Your task to perform on an android device: check android version Image 0: 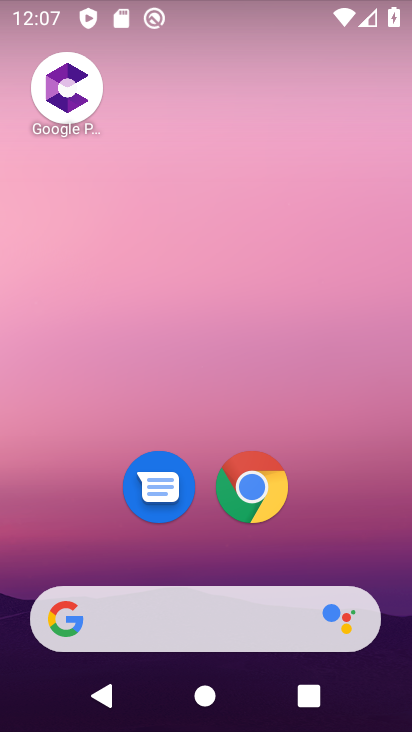
Step 0: press home button
Your task to perform on an android device: check android version Image 1: 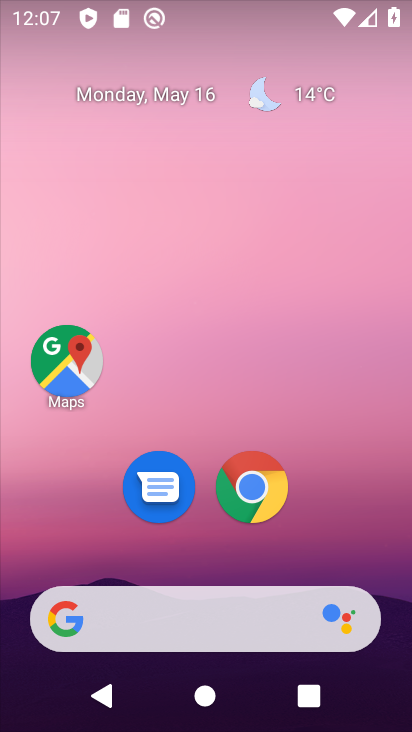
Step 1: drag from (192, 610) to (313, 138)
Your task to perform on an android device: check android version Image 2: 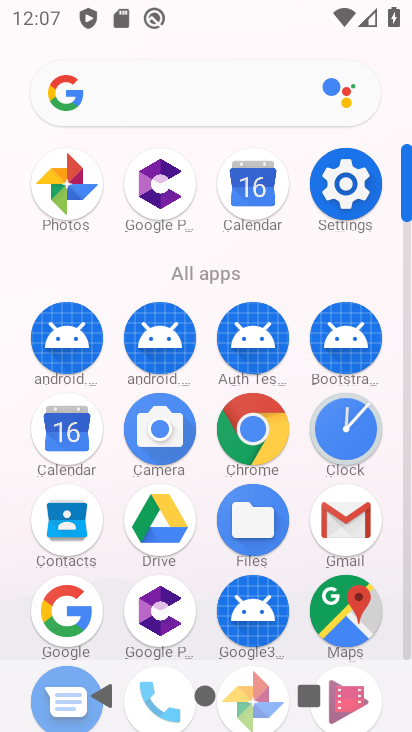
Step 2: click (348, 191)
Your task to perform on an android device: check android version Image 3: 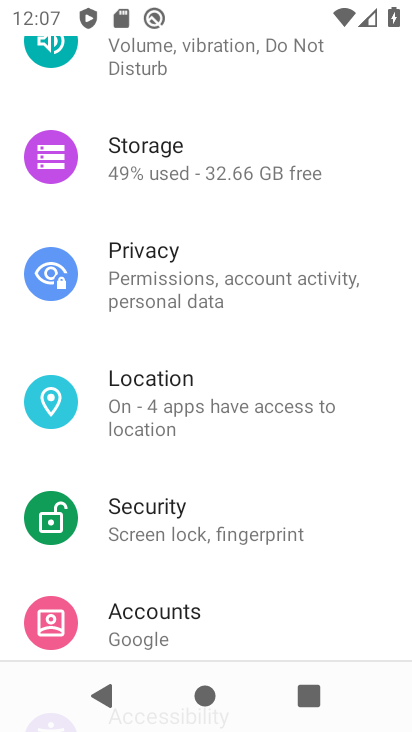
Step 3: drag from (221, 620) to (368, 90)
Your task to perform on an android device: check android version Image 4: 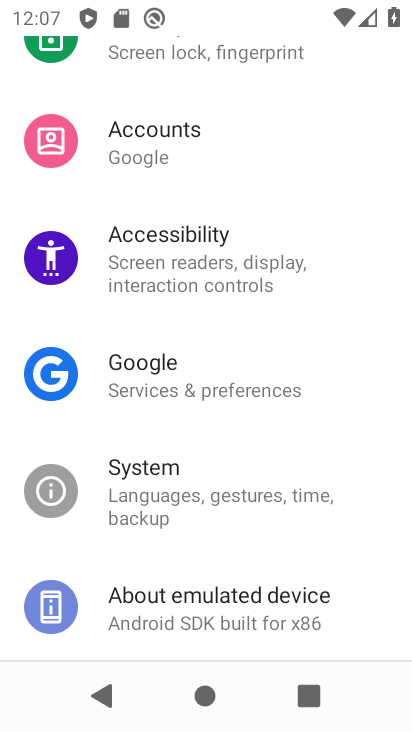
Step 4: drag from (179, 567) to (332, 211)
Your task to perform on an android device: check android version Image 5: 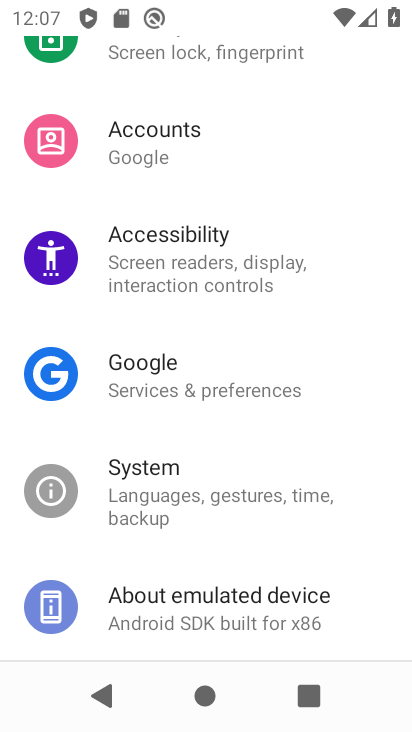
Step 5: click (192, 598)
Your task to perform on an android device: check android version Image 6: 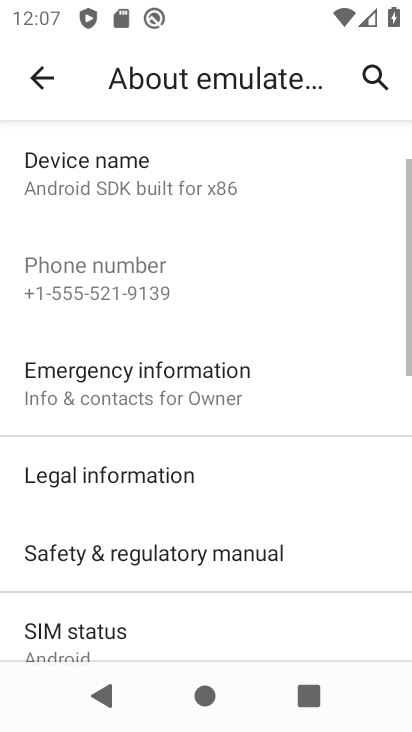
Step 6: drag from (225, 601) to (377, 160)
Your task to perform on an android device: check android version Image 7: 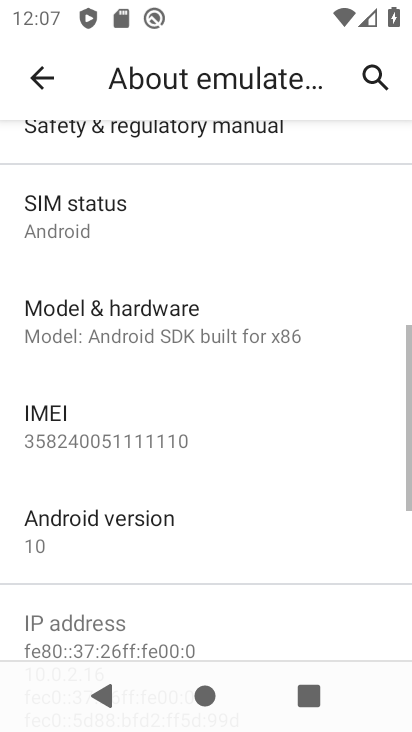
Step 7: click (143, 517)
Your task to perform on an android device: check android version Image 8: 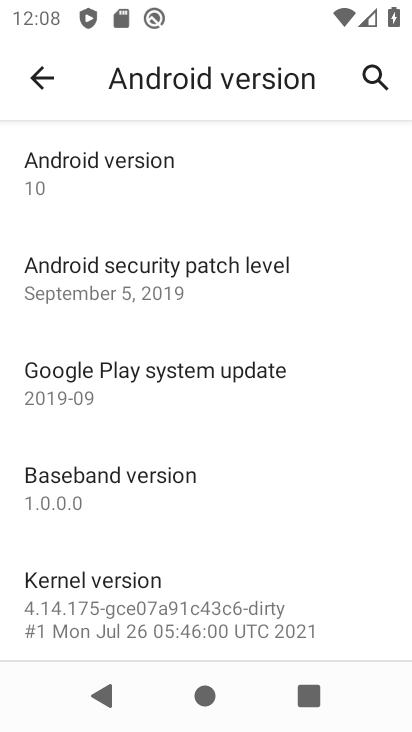
Step 8: task complete